Your task to perform on an android device: change timer sound Image 0: 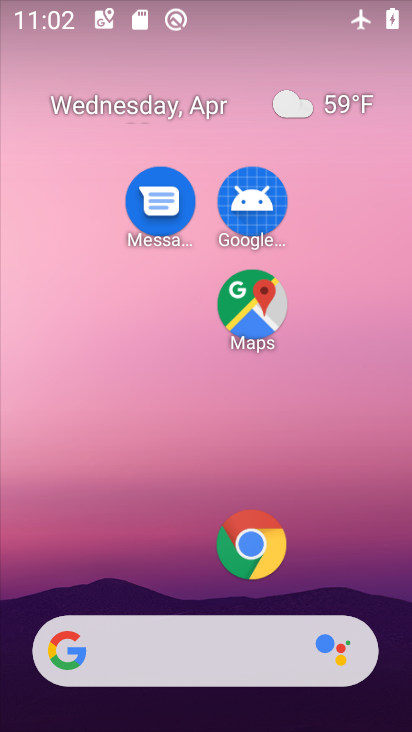
Step 0: drag from (175, 586) to (224, 230)
Your task to perform on an android device: change timer sound Image 1: 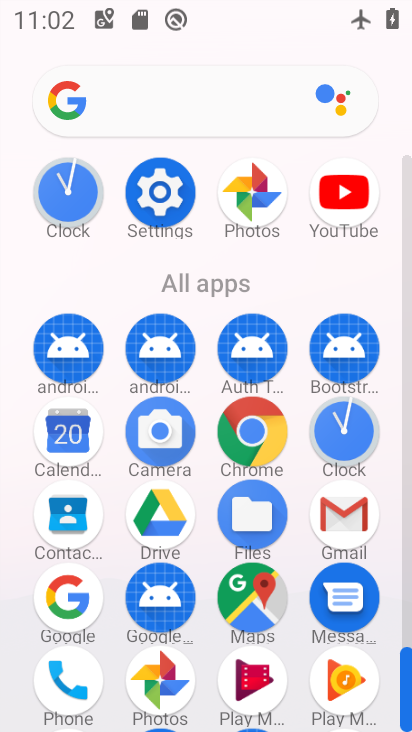
Step 1: click (320, 428)
Your task to perform on an android device: change timer sound Image 2: 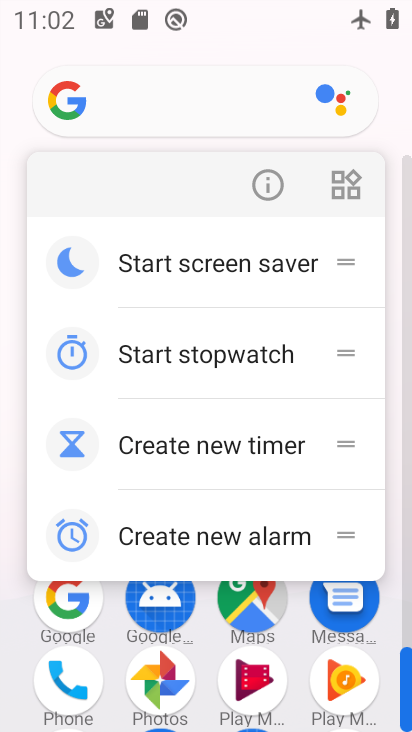
Step 2: click (386, 122)
Your task to perform on an android device: change timer sound Image 3: 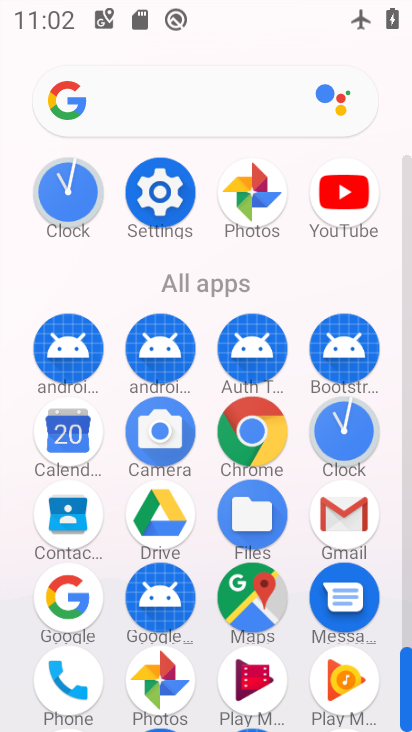
Step 3: click (341, 429)
Your task to perform on an android device: change timer sound Image 4: 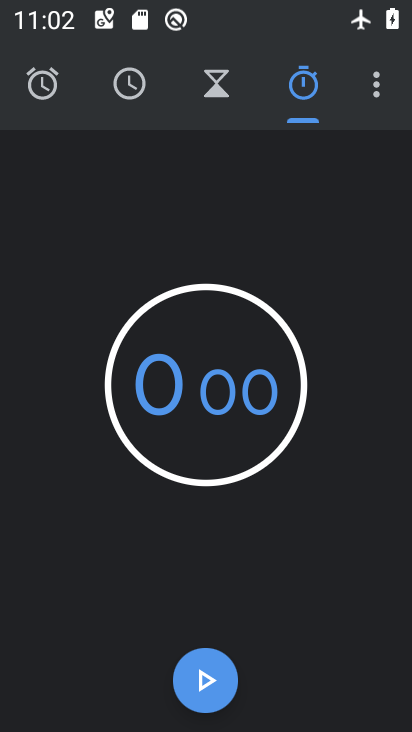
Step 4: drag from (376, 85) to (354, 125)
Your task to perform on an android device: change timer sound Image 5: 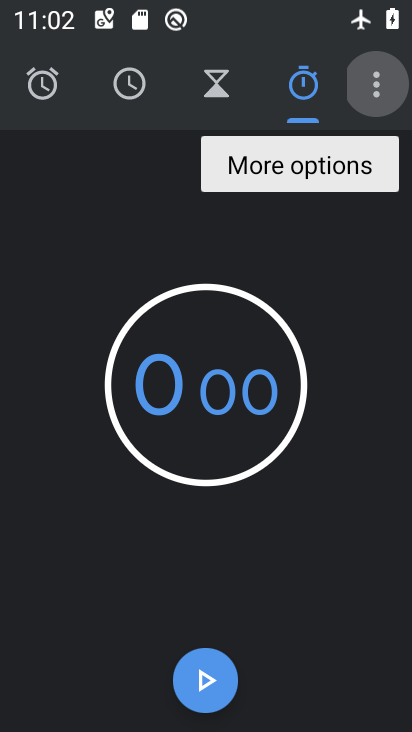
Step 5: click (367, 94)
Your task to perform on an android device: change timer sound Image 6: 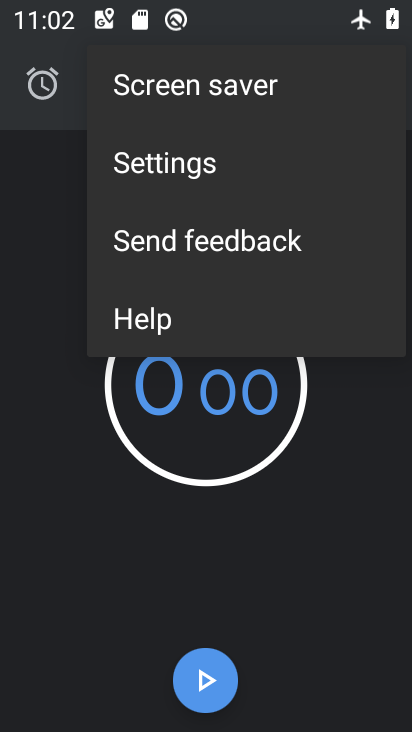
Step 6: click (250, 176)
Your task to perform on an android device: change timer sound Image 7: 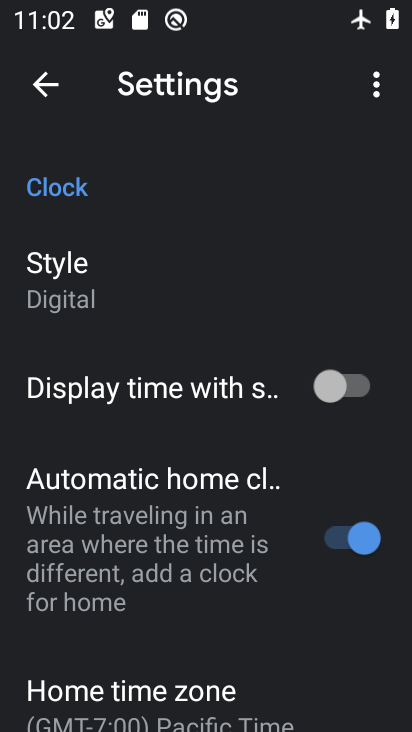
Step 7: drag from (157, 610) to (166, 185)
Your task to perform on an android device: change timer sound Image 8: 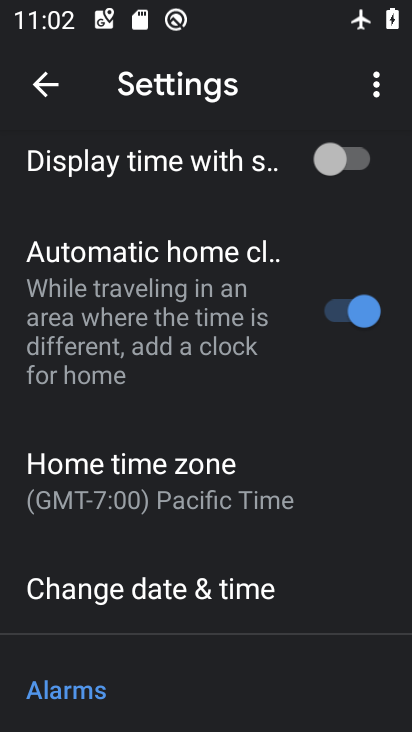
Step 8: drag from (189, 561) to (188, 188)
Your task to perform on an android device: change timer sound Image 9: 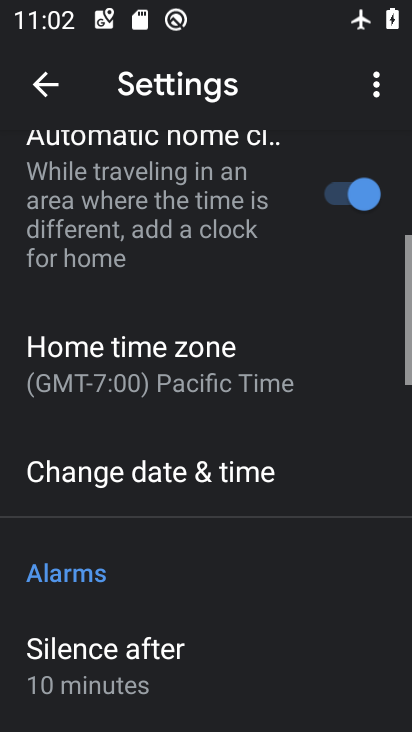
Step 9: drag from (208, 642) to (213, 295)
Your task to perform on an android device: change timer sound Image 10: 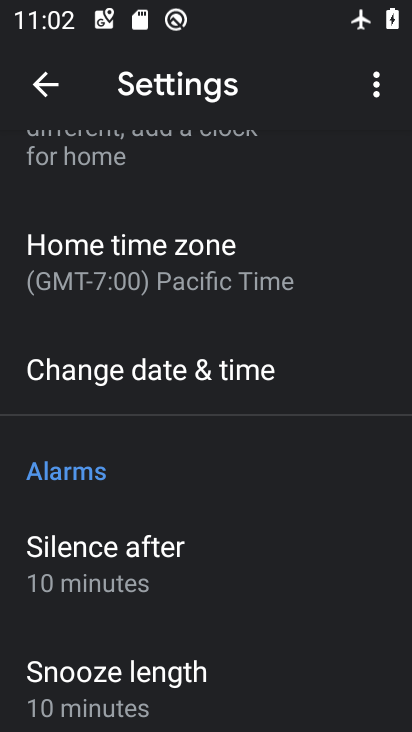
Step 10: drag from (211, 598) to (207, 335)
Your task to perform on an android device: change timer sound Image 11: 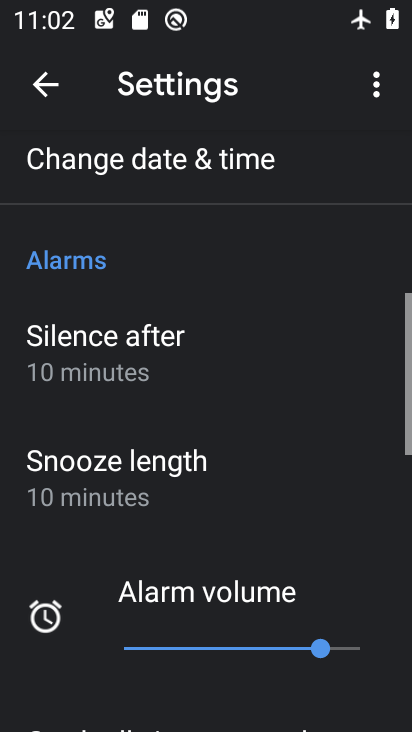
Step 11: drag from (234, 668) to (235, 305)
Your task to perform on an android device: change timer sound Image 12: 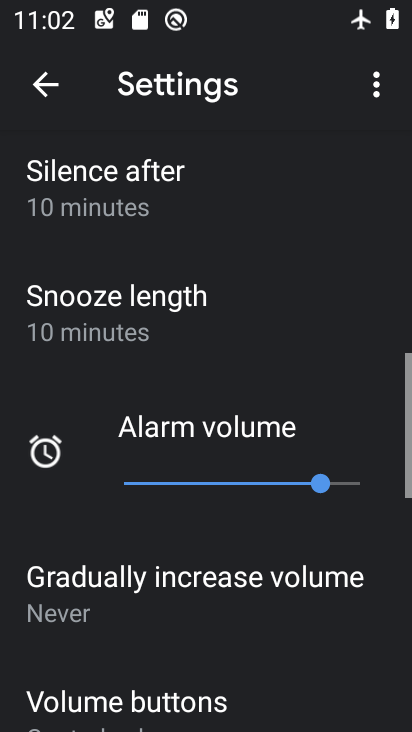
Step 12: drag from (240, 633) to (259, 331)
Your task to perform on an android device: change timer sound Image 13: 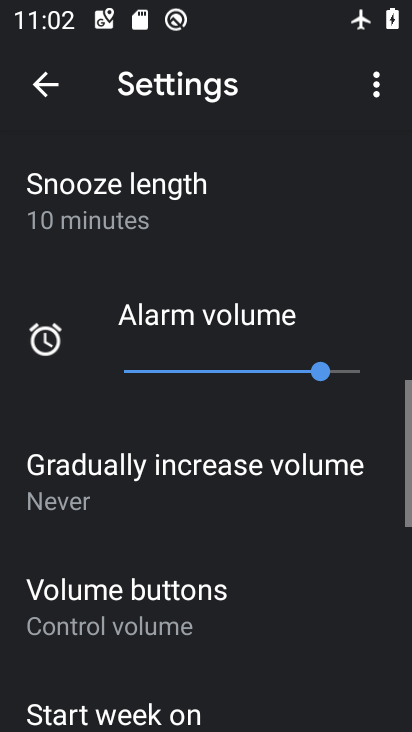
Step 13: drag from (245, 618) to (233, 310)
Your task to perform on an android device: change timer sound Image 14: 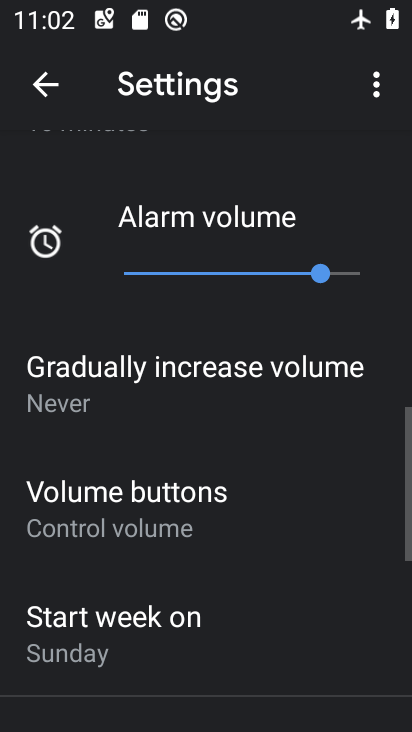
Step 14: drag from (235, 639) to (226, 347)
Your task to perform on an android device: change timer sound Image 15: 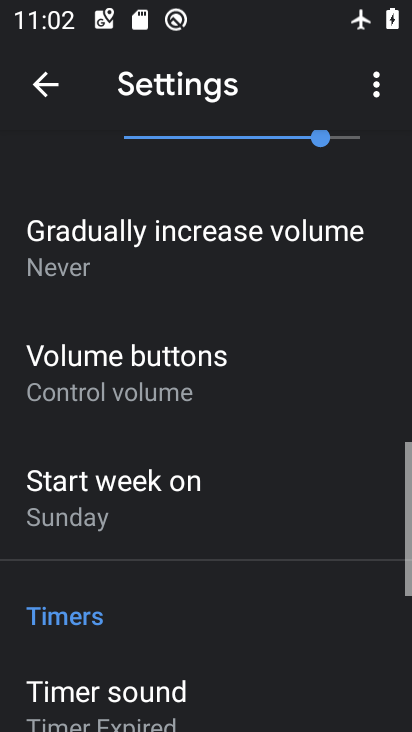
Step 15: drag from (227, 639) to (239, 376)
Your task to perform on an android device: change timer sound Image 16: 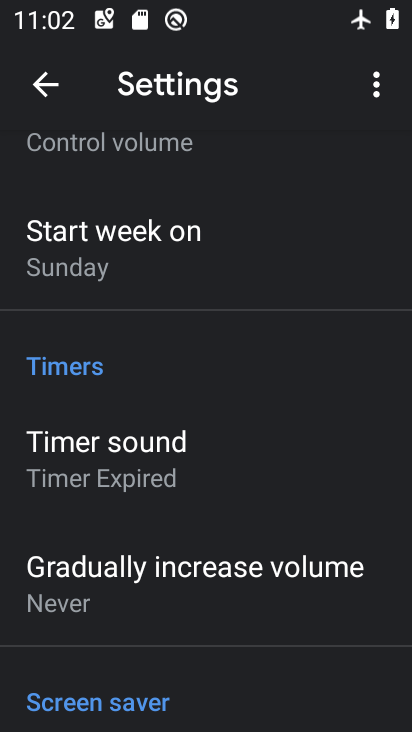
Step 16: click (189, 454)
Your task to perform on an android device: change timer sound Image 17: 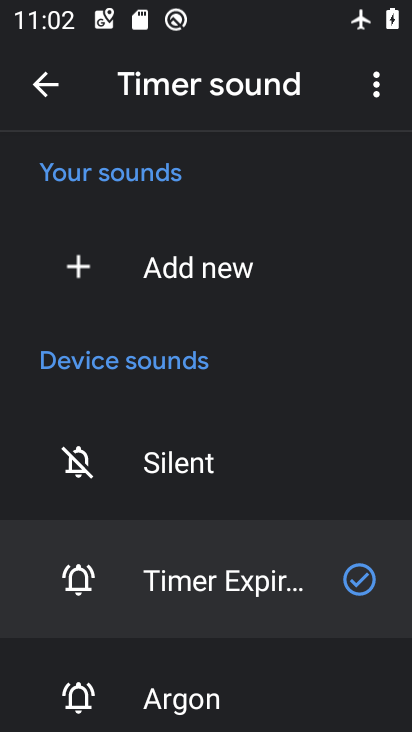
Step 17: click (216, 703)
Your task to perform on an android device: change timer sound Image 18: 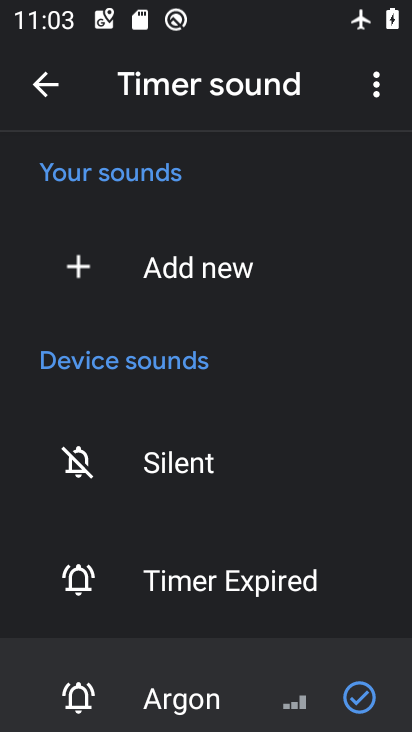
Step 18: task complete